Your task to perform on an android device: Open Youtube and go to the subscriptions tab Image 0: 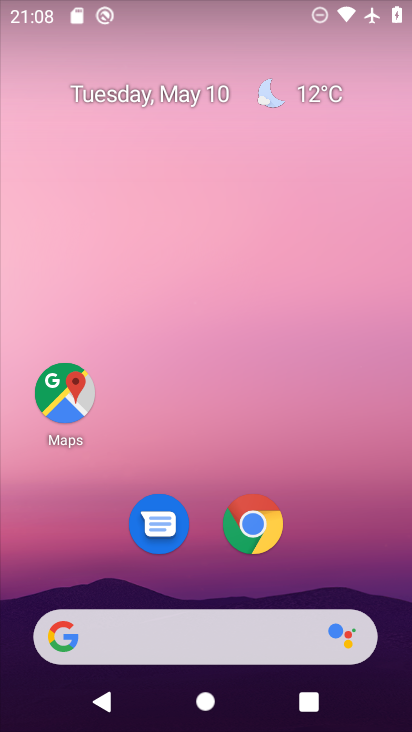
Step 0: drag from (317, 532) to (281, 119)
Your task to perform on an android device: Open Youtube and go to the subscriptions tab Image 1: 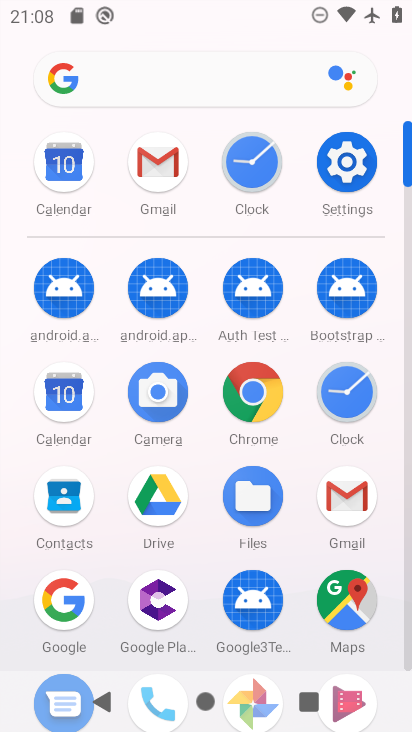
Step 1: drag from (313, 547) to (310, 74)
Your task to perform on an android device: Open Youtube and go to the subscriptions tab Image 2: 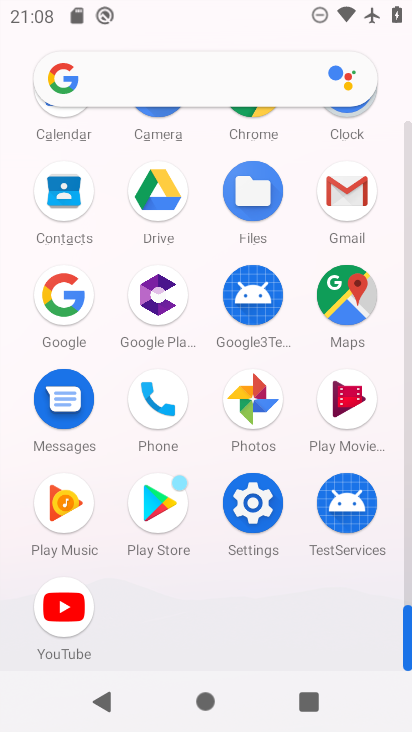
Step 2: click (72, 599)
Your task to perform on an android device: Open Youtube and go to the subscriptions tab Image 3: 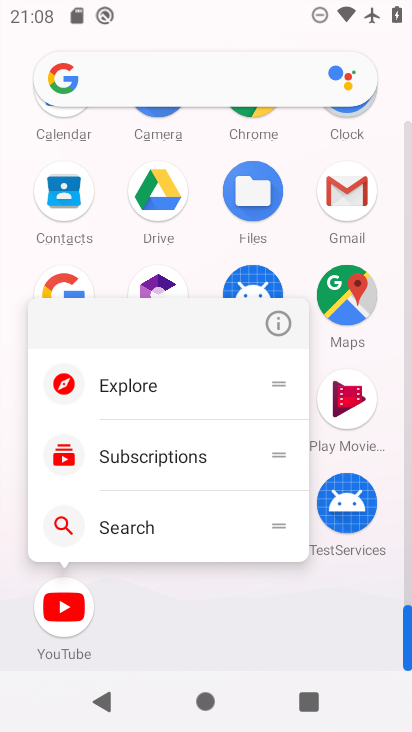
Step 3: click (75, 608)
Your task to perform on an android device: Open Youtube and go to the subscriptions tab Image 4: 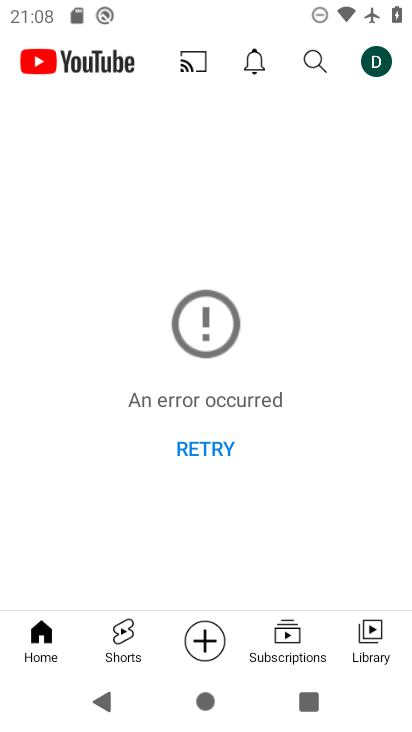
Step 4: click (290, 633)
Your task to perform on an android device: Open Youtube and go to the subscriptions tab Image 5: 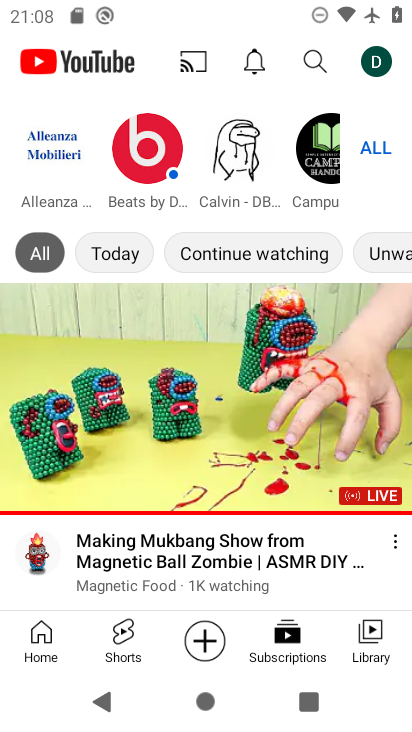
Step 5: task complete